Your task to perform on an android device: Open Google Maps Image 0: 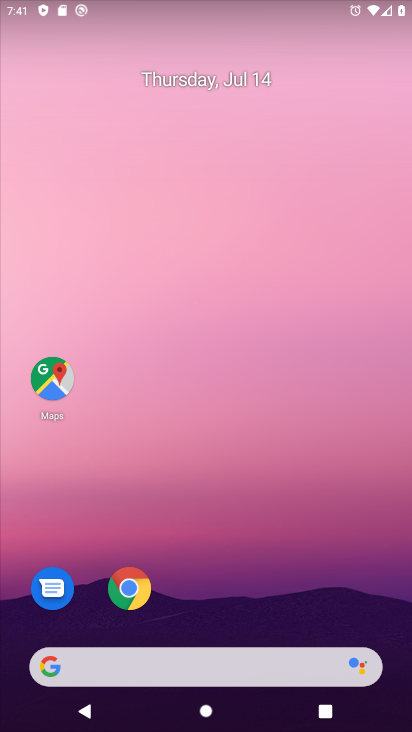
Step 0: click (36, 379)
Your task to perform on an android device: Open Google Maps Image 1: 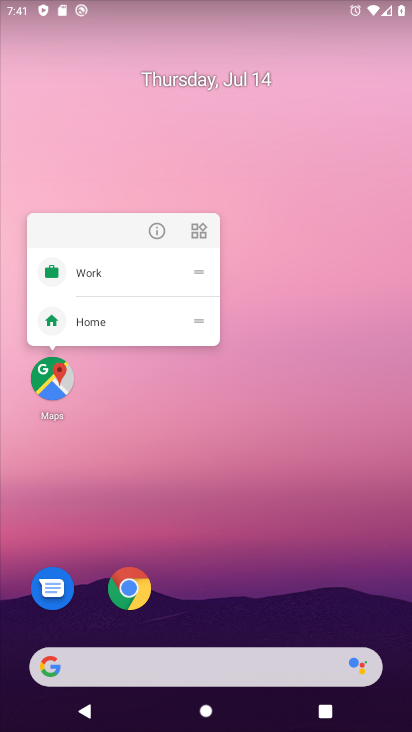
Step 1: click (43, 394)
Your task to perform on an android device: Open Google Maps Image 2: 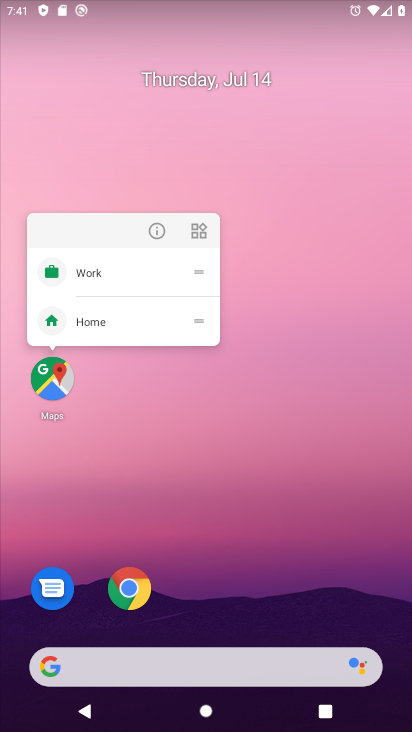
Step 2: click (42, 370)
Your task to perform on an android device: Open Google Maps Image 3: 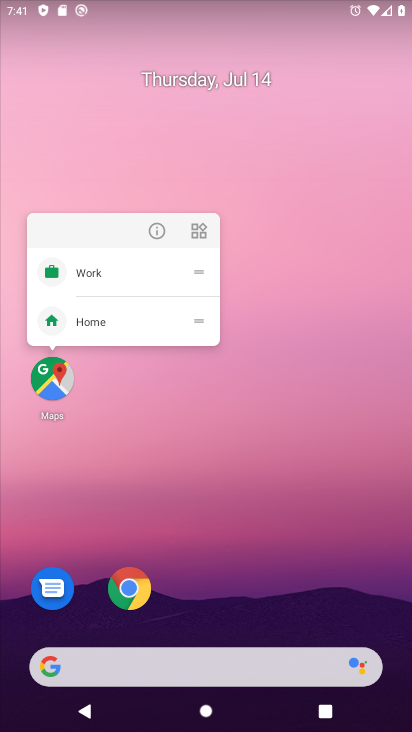
Step 3: click (44, 389)
Your task to perform on an android device: Open Google Maps Image 4: 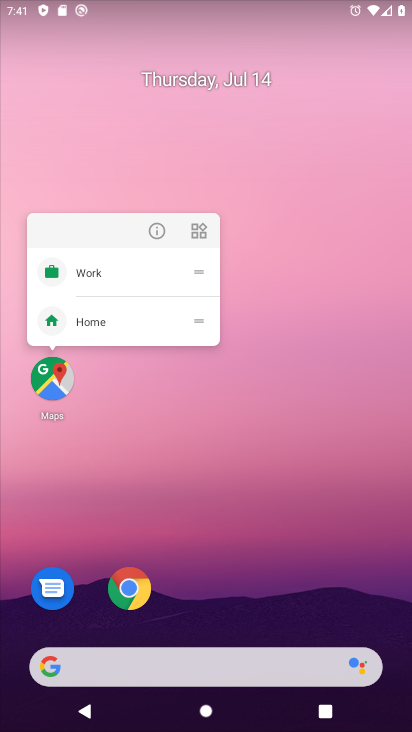
Step 4: task complete